Your task to perform on an android device: turn off notifications in google photos Image 0: 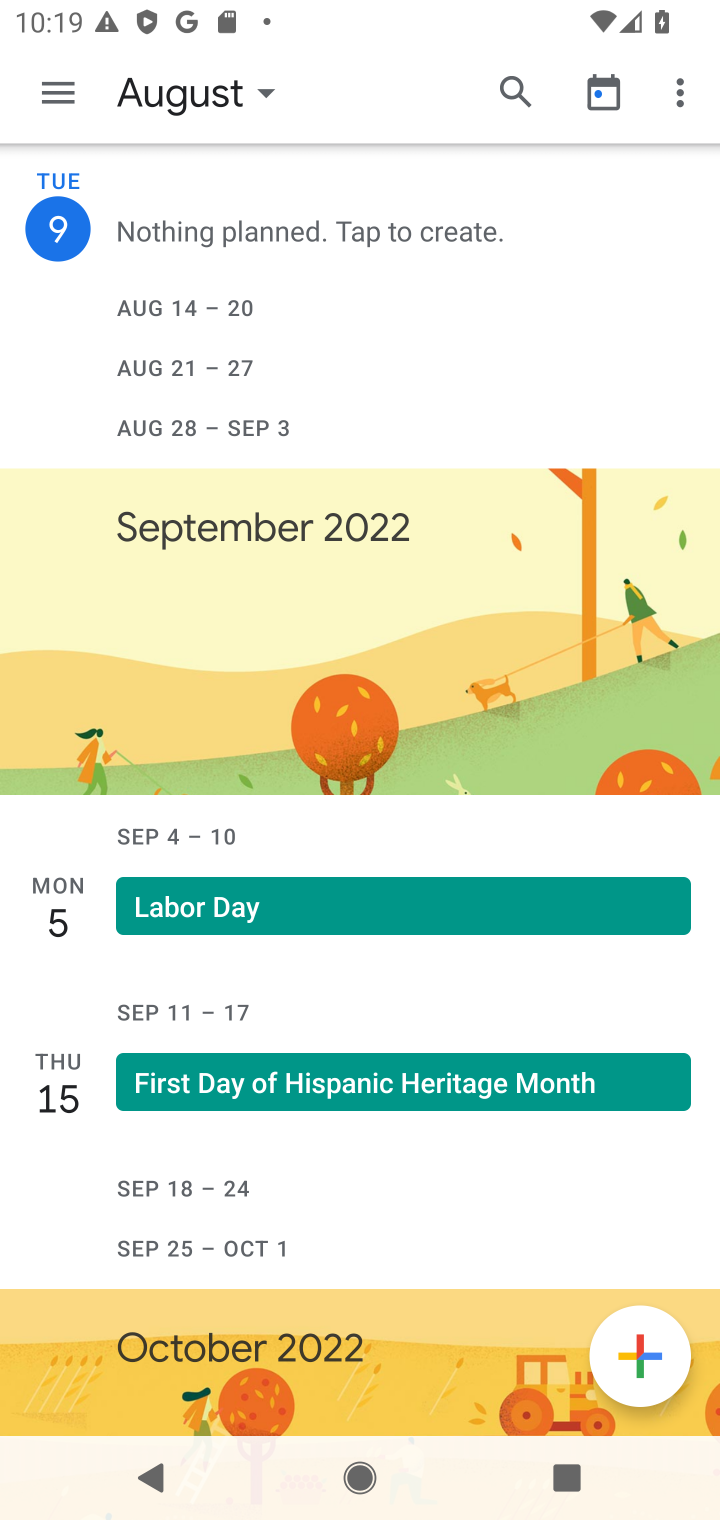
Step 0: press home button
Your task to perform on an android device: turn off notifications in google photos Image 1: 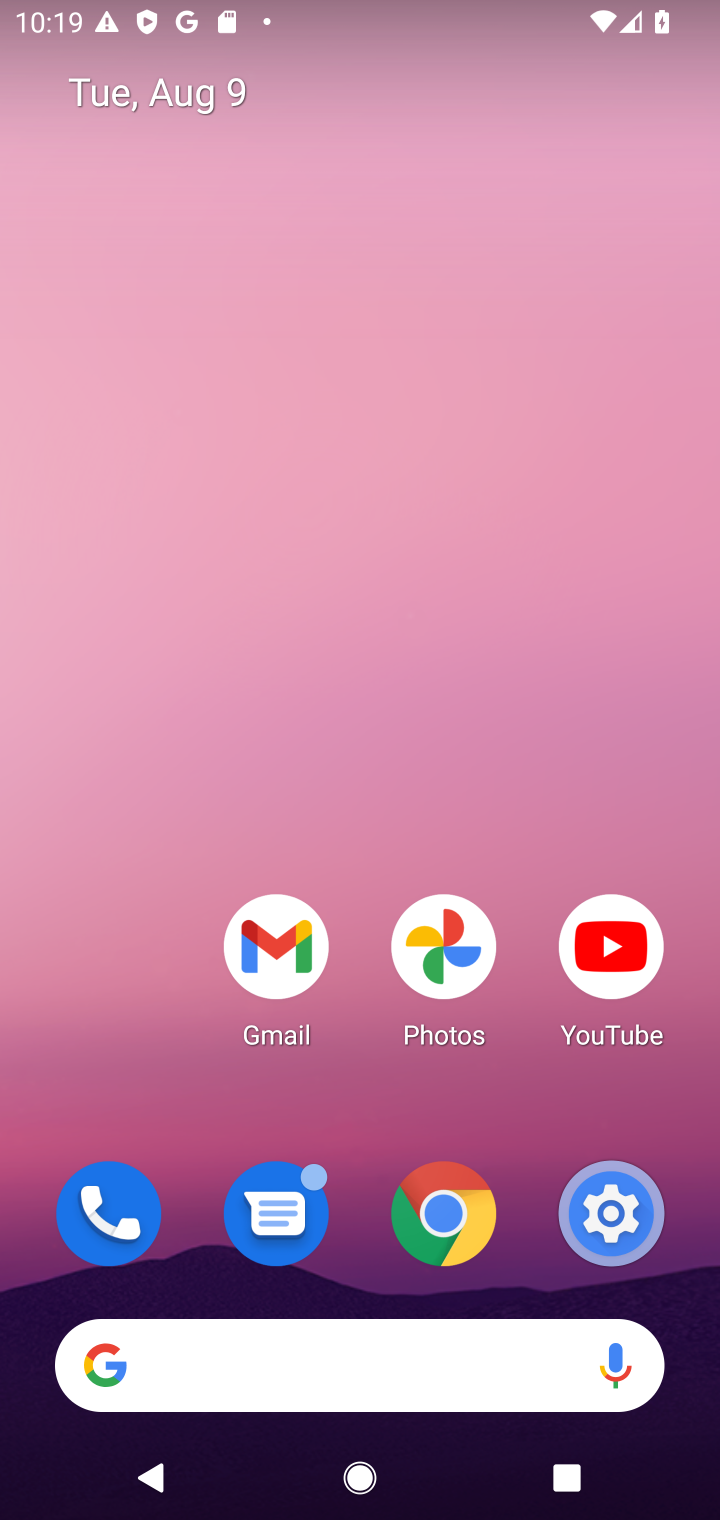
Step 1: click (428, 965)
Your task to perform on an android device: turn off notifications in google photos Image 2: 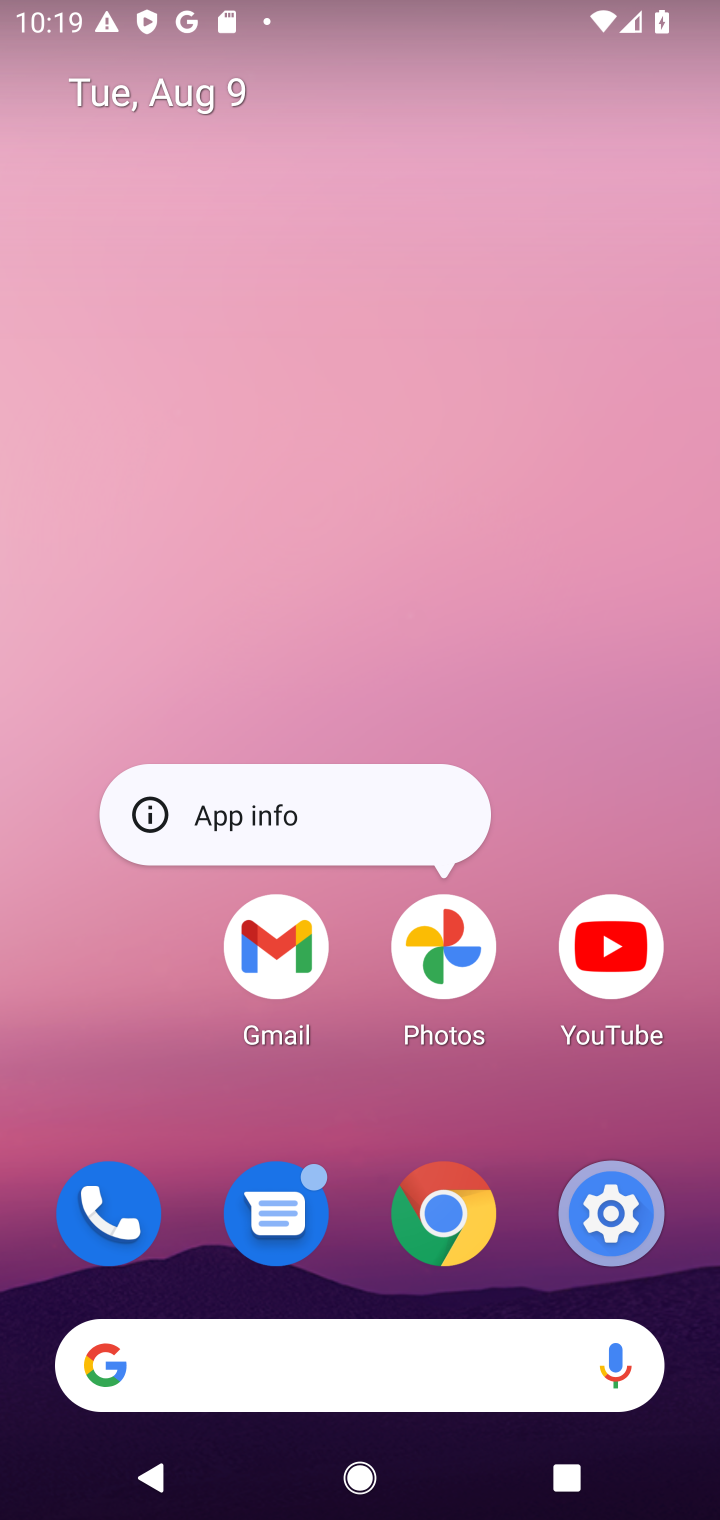
Step 2: click (423, 949)
Your task to perform on an android device: turn off notifications in google photos Image 3: 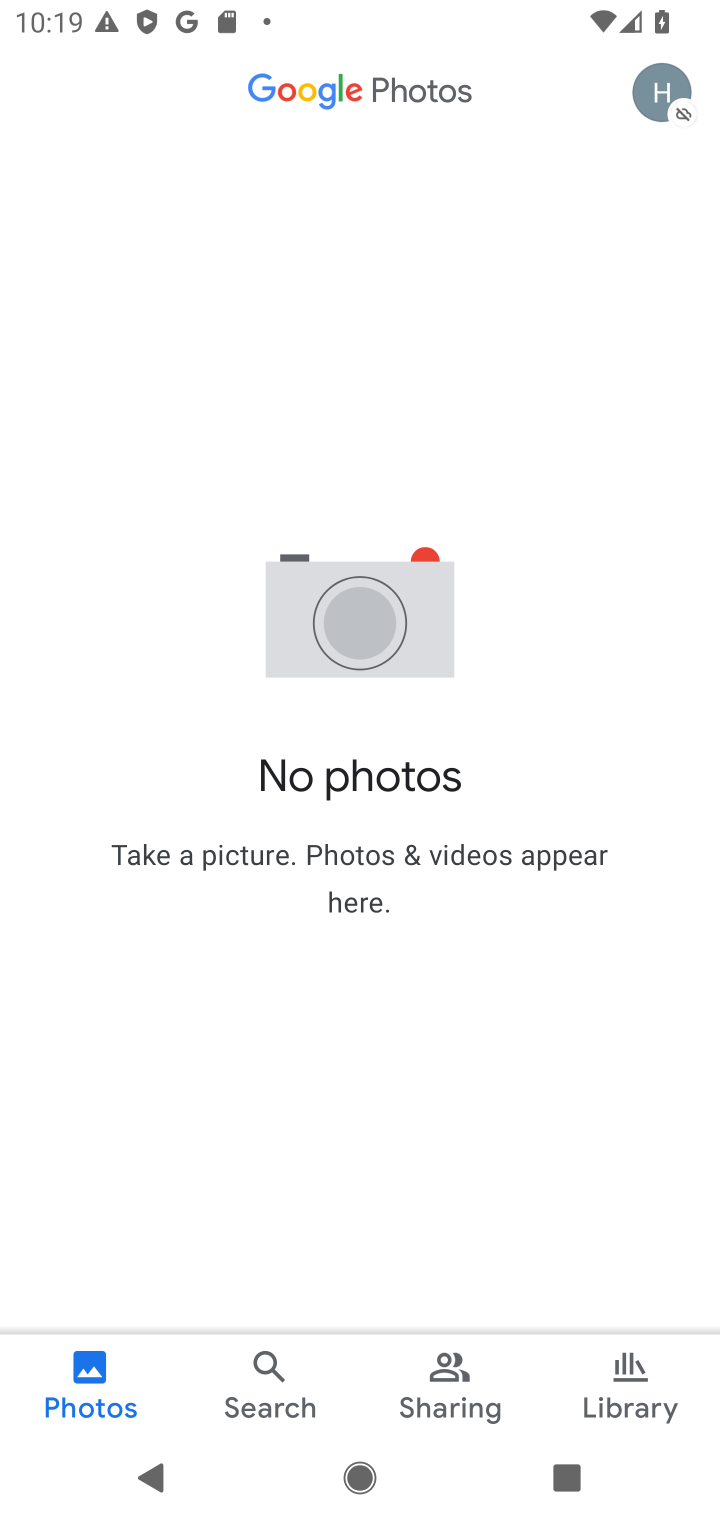
Step 3: drag from (648, 103) to (555, 513)
Your task to perform on an android device: turn off notifications in google photos Image 4: 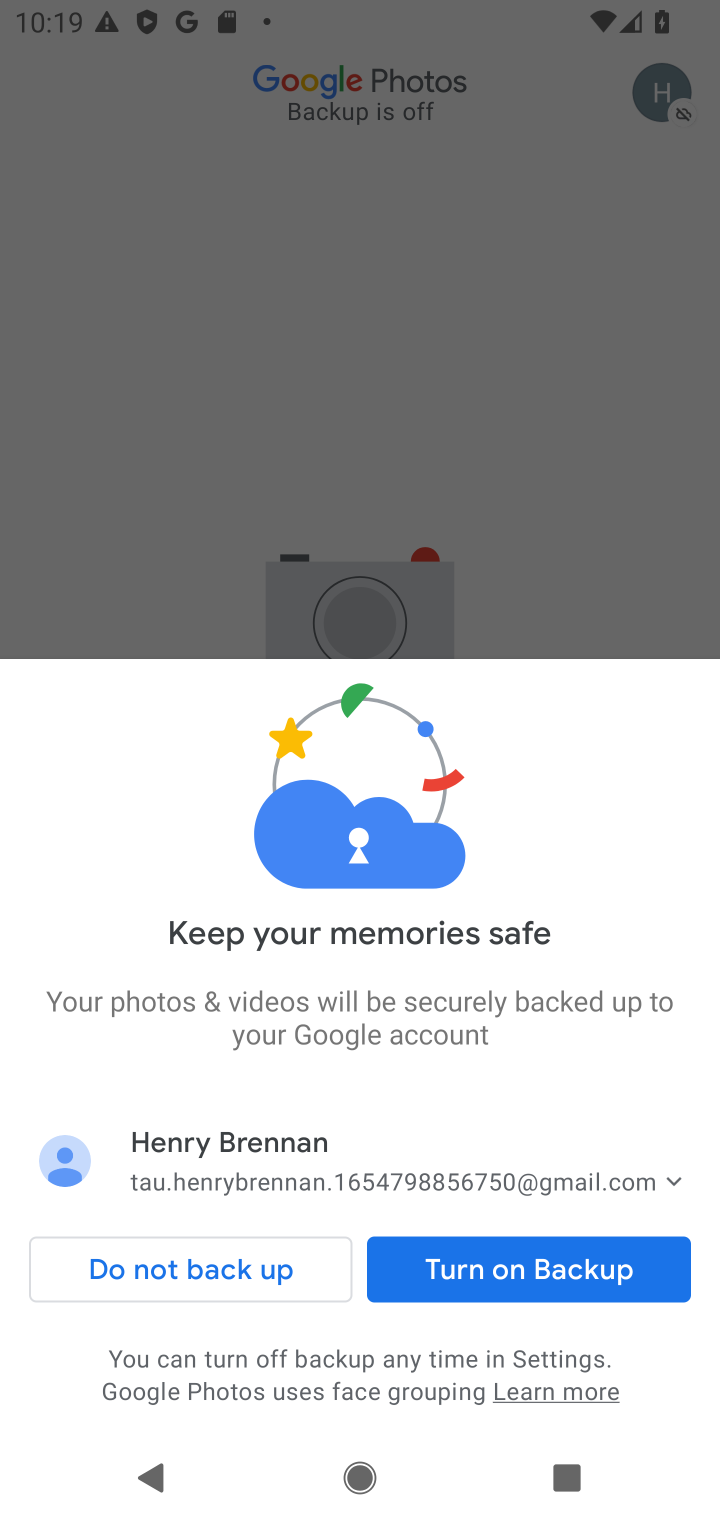
Step 4: click (432, 1259)
Your task to perform on an android device: turn off notifications in google photos Image 5: 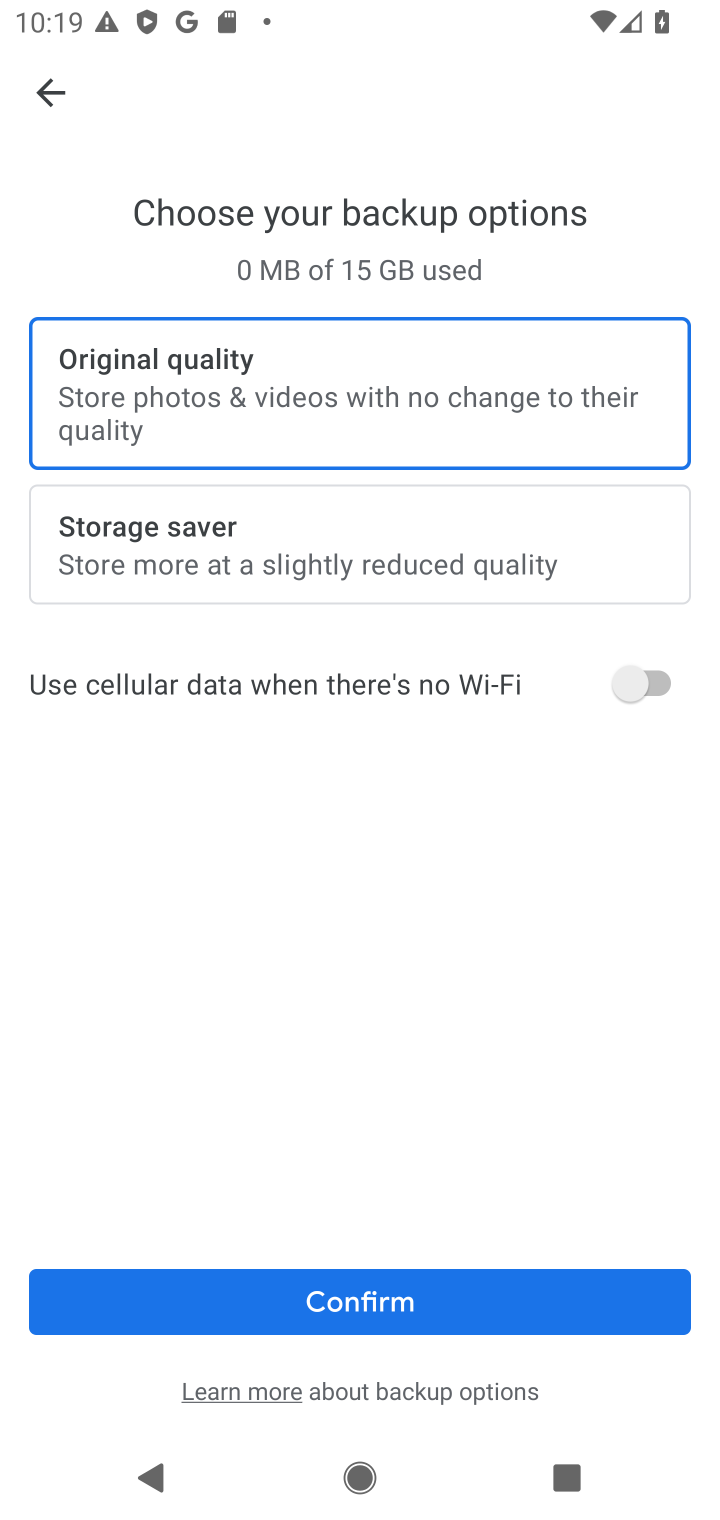
Step 5: click (531, 1308)
Your task to perform on an android device: turn off notifications in google photos Image 6: 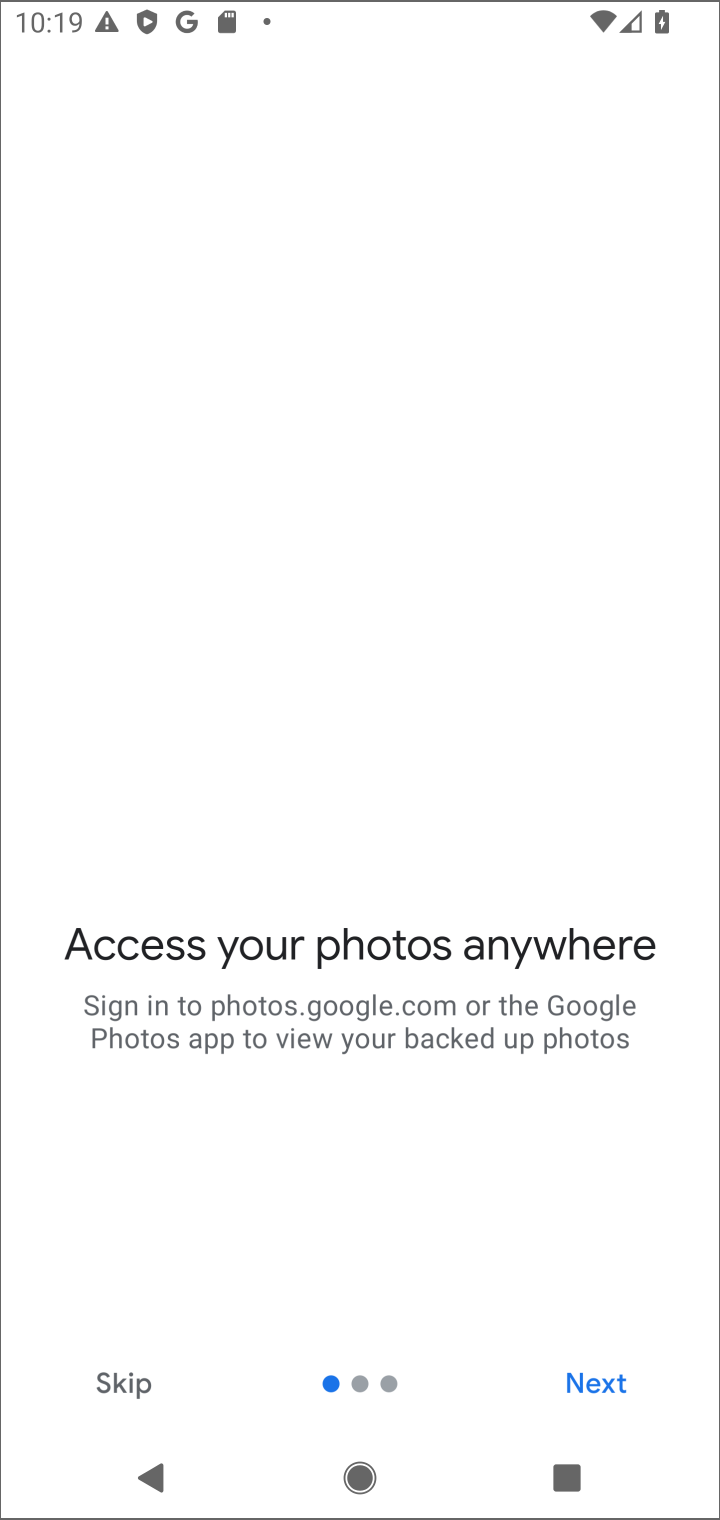
Step 6: click (448, 1319)
Your task to perform on an android device: turn off notifications in google photos Image 7: 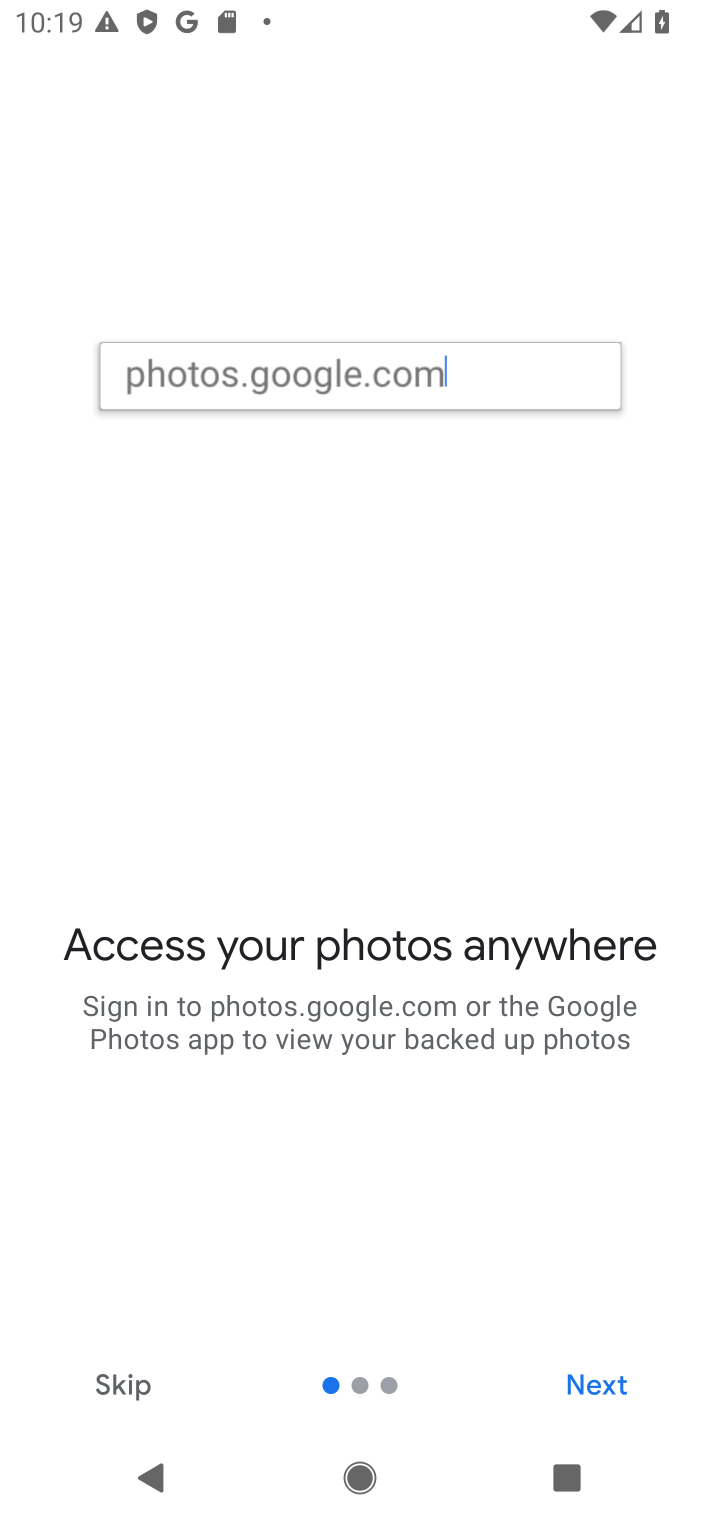
Step 7: click (137, 1346)
Your task to perform on an android device: turn off notifications in google photos Image 8: 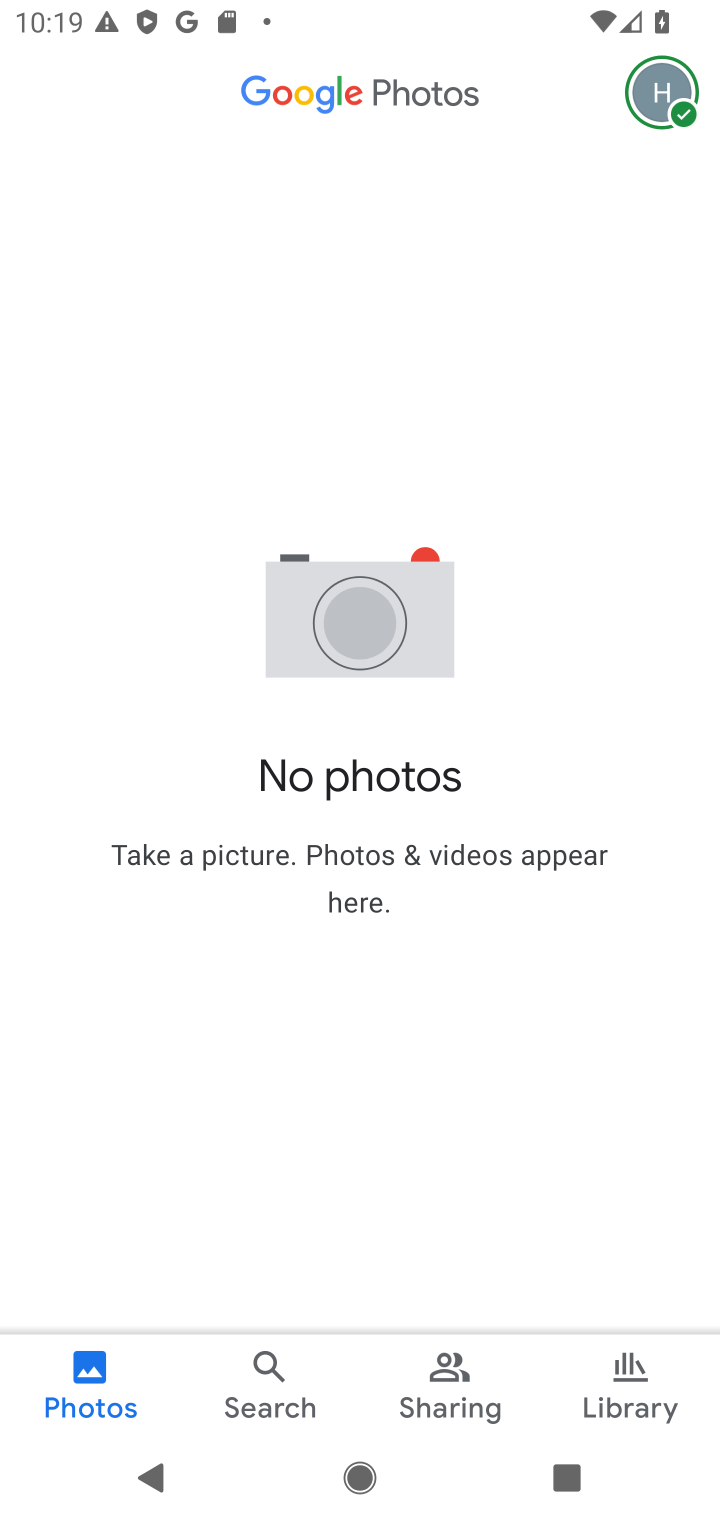
Step 8: click (658, 66)
Your task to perform on an android device: turn off notifications in google photos Image 9: 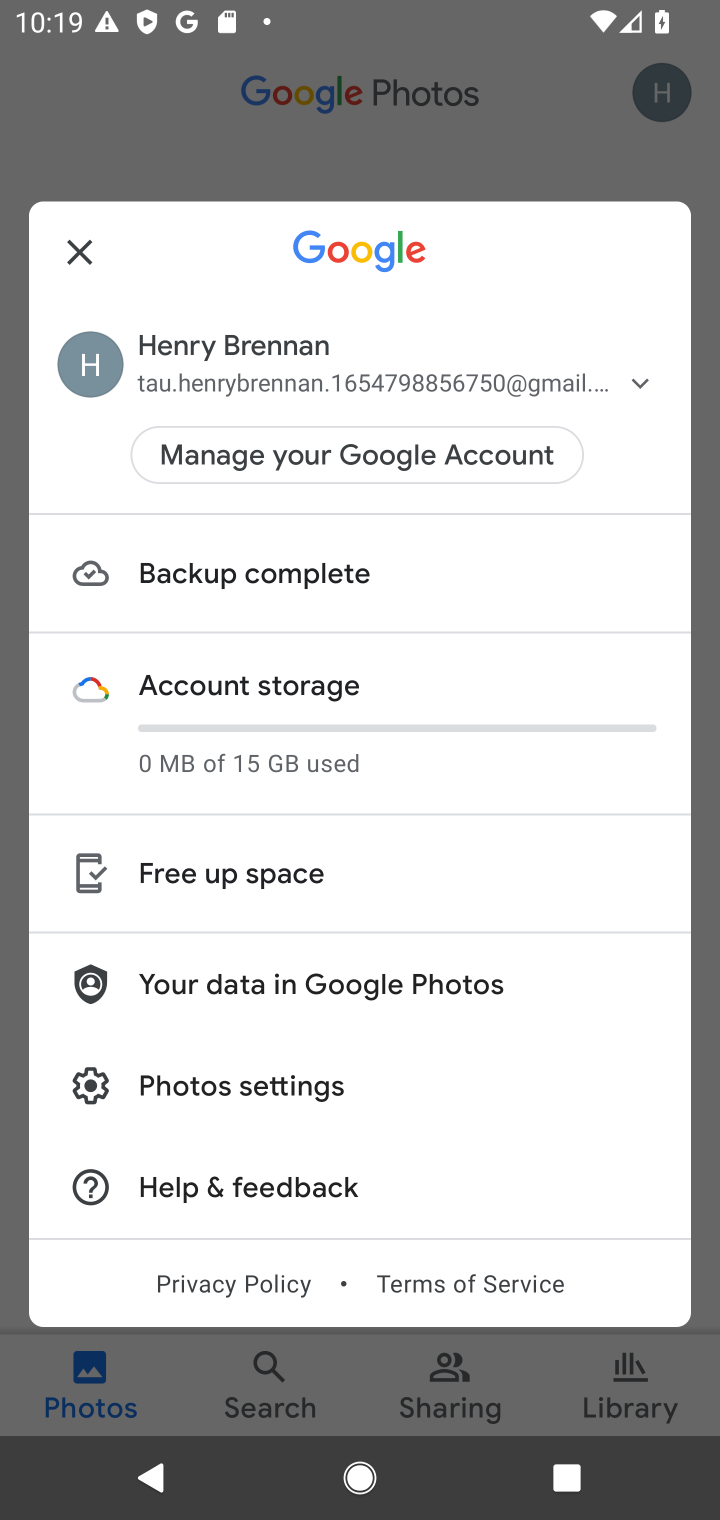
Step 9: click (253, 1100)
Your task to perform on an android device: turn off notifications in google photos Image 10: 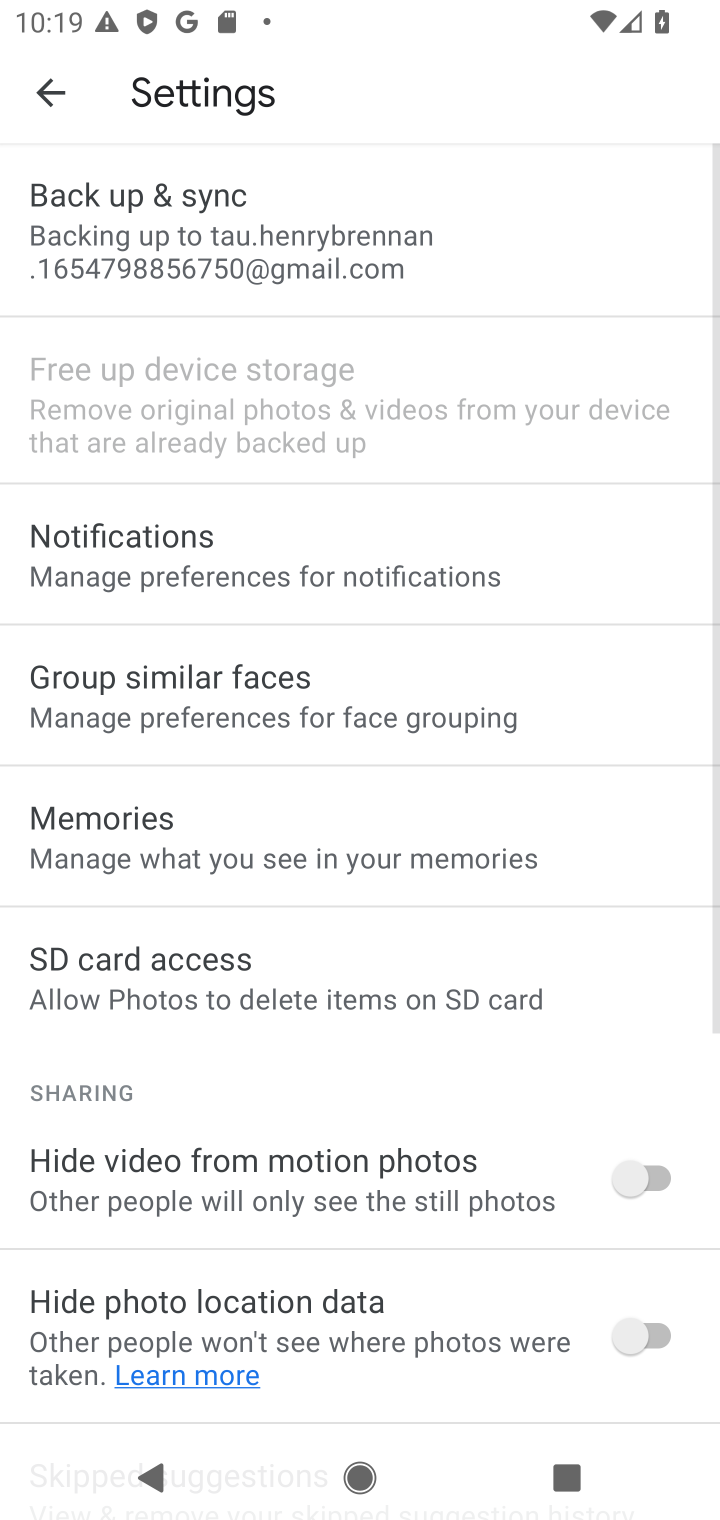
Step 10: click (188, 585)
Your task to perform on an android device: turn off notifications in google photos Image 11: 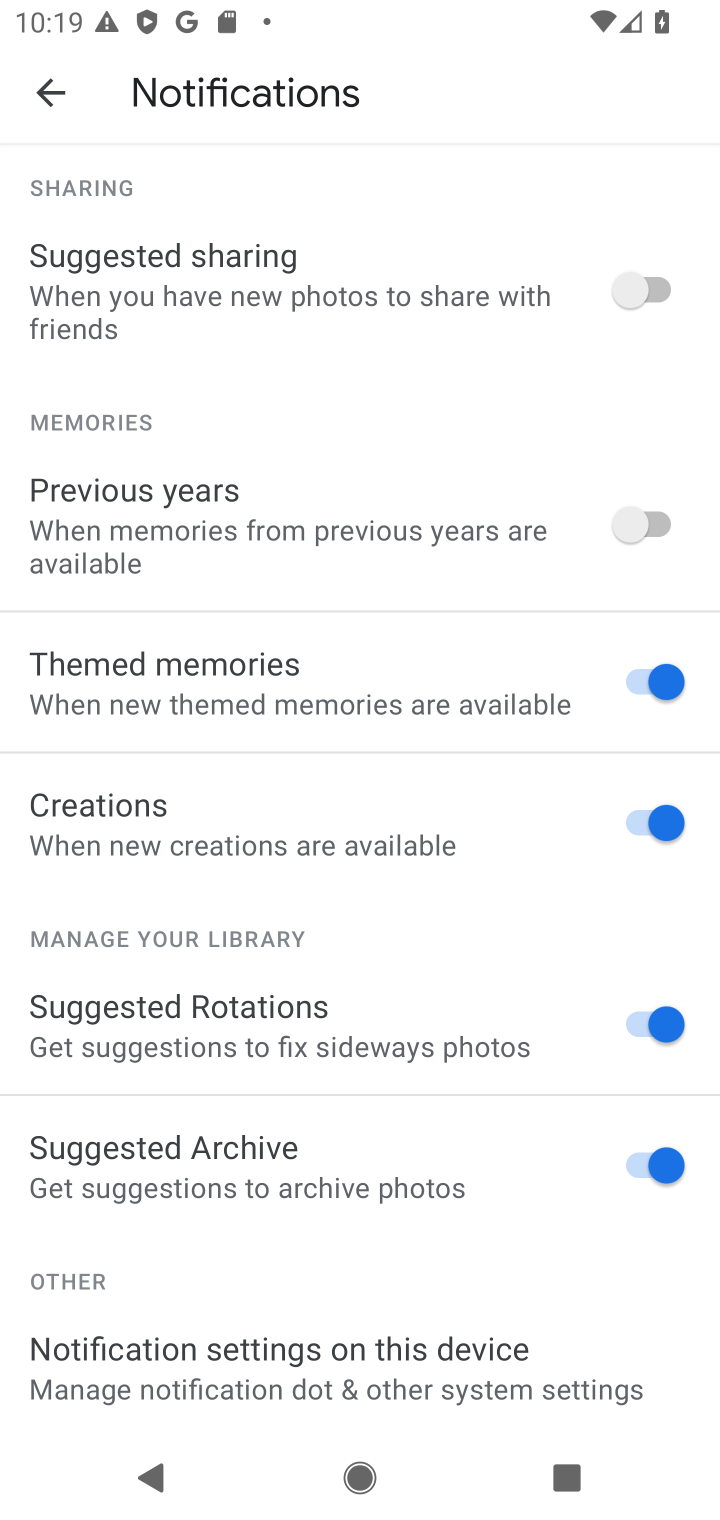
Step 11: click (422, 1329)
Your task to perform on an android device: turn off notifications in google photos Image 12: 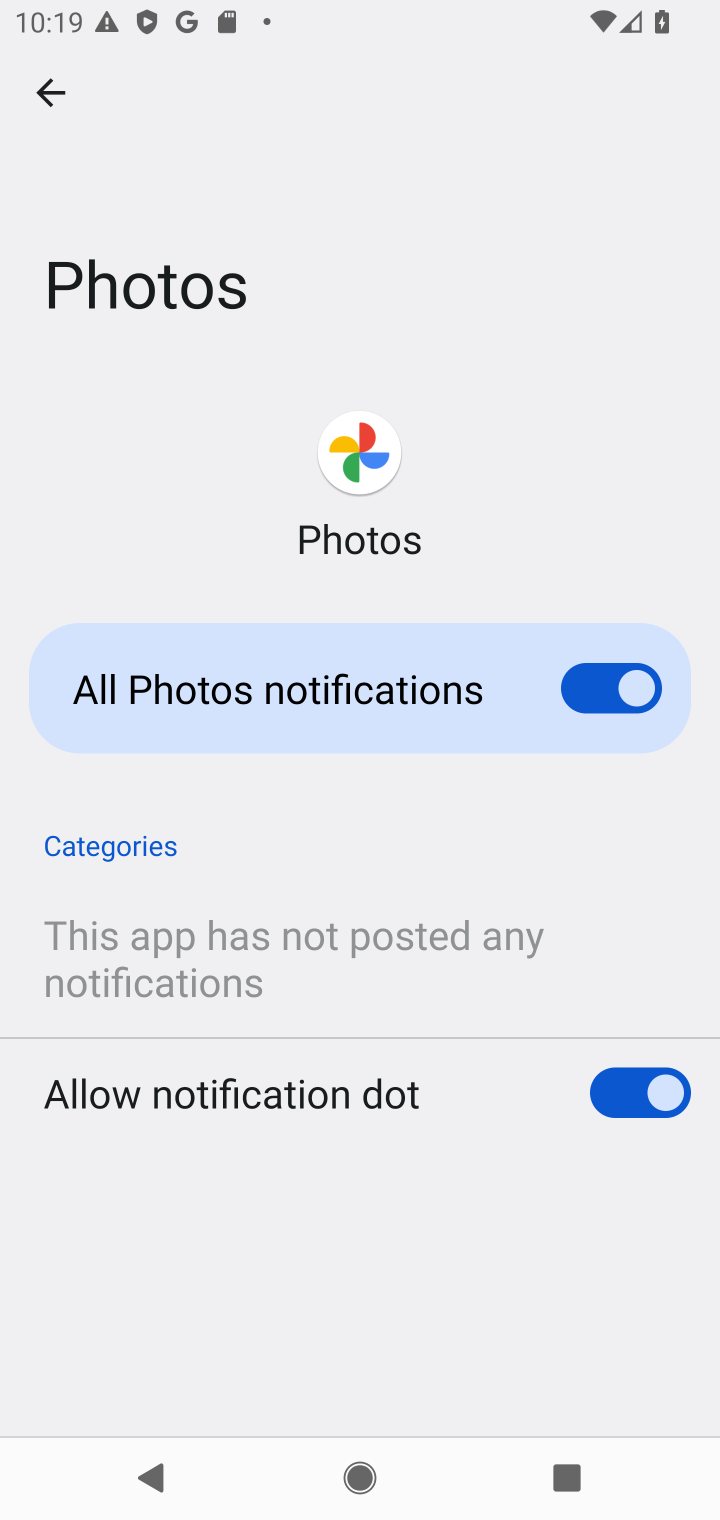
Step 12: click (608, 707)
Your task to perform on an android device: turn off notifications in google photos Image 13: 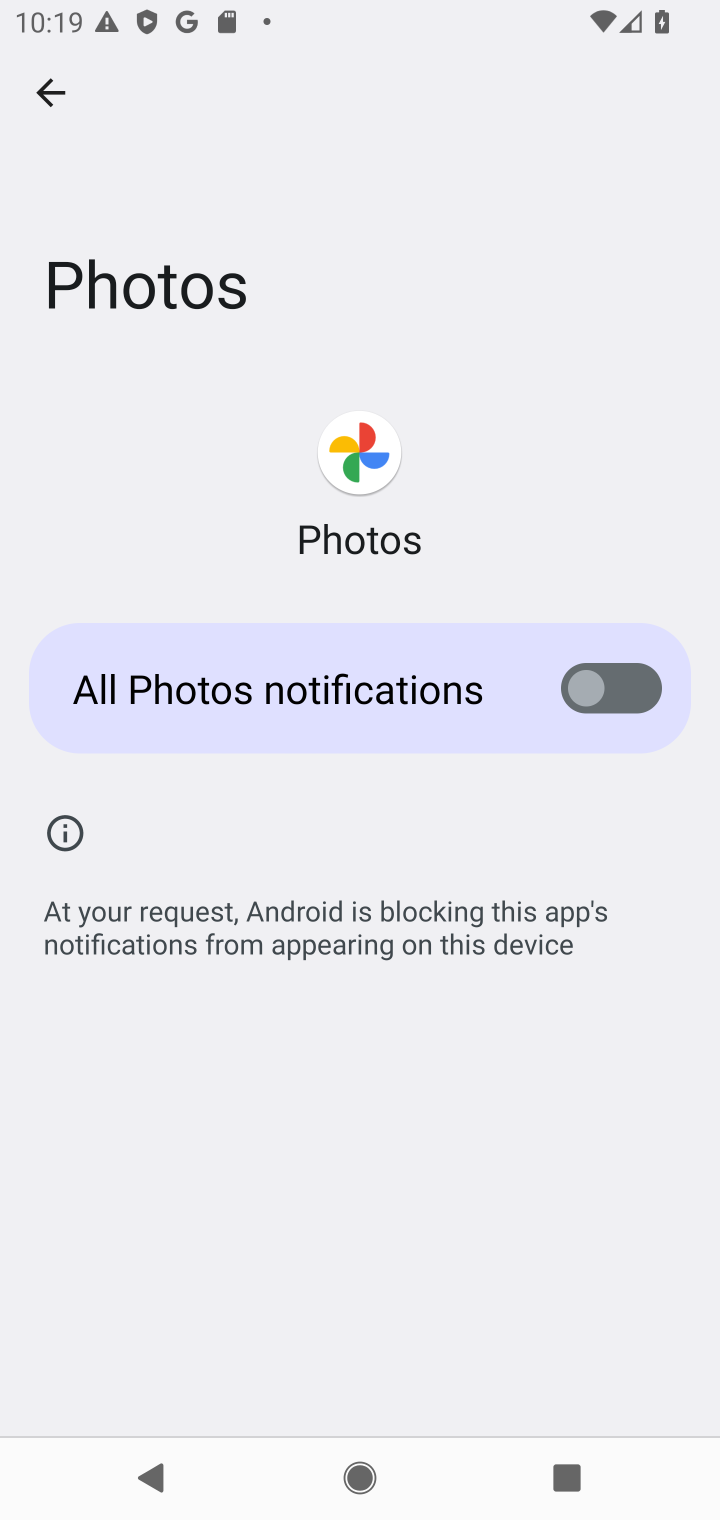
Step 13: task complete